Your task to perform on an android device: toggle priority inbox in the gmail app Image 0: 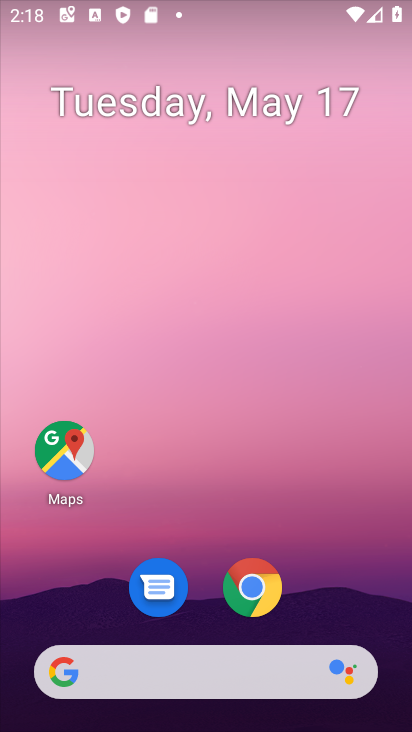
Step 0: drag from (177, 635) to (305, 101)
Your task to perform on an android device: toggle priority inbox in the gmail app Image 1: 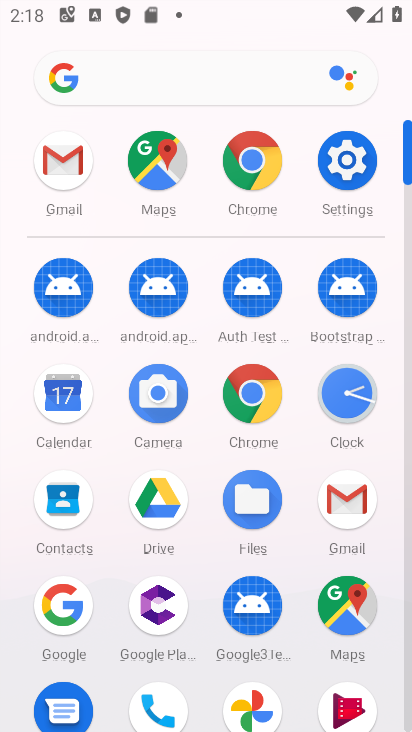
Step 1: click (352, 486)
Your task to perform on an android device: toggle priority inbox in the gmail app Image 2: 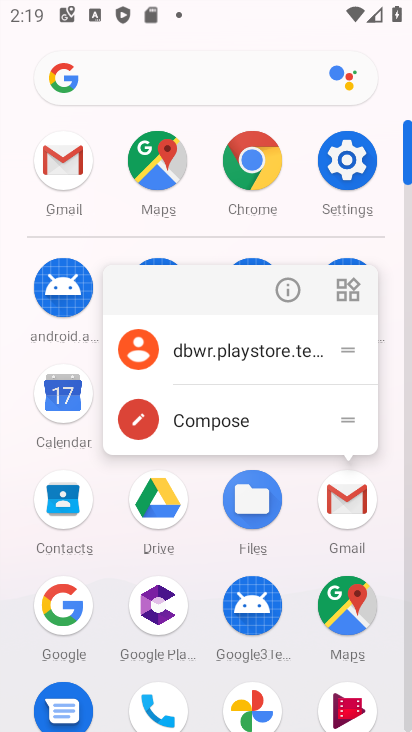
Step 2: click (252, 343)
Your task to perform on an android device: toggle priority inbox in the gmail app Image 3: 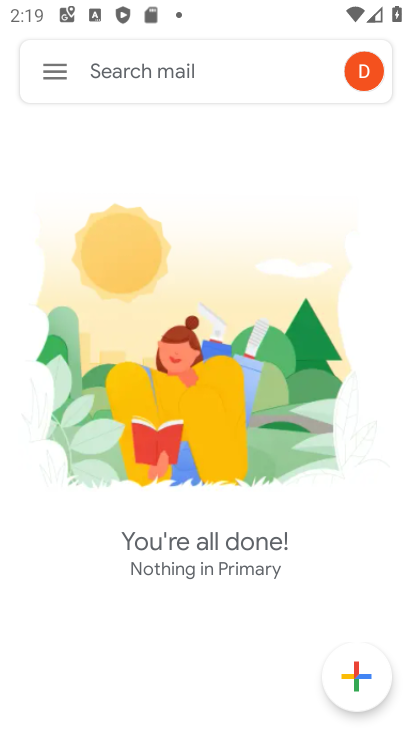
Step 3: click (59, 74)
Your task to perform on an android device: toggle priority inbox in the gmail app Image 4: 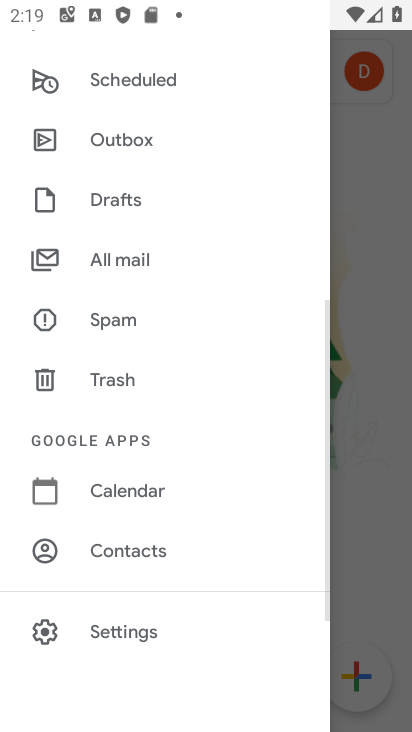
Step 4: click (150, 626)
Your task to perform on an android device: toggle priority inbox in the gmail app Image 5: 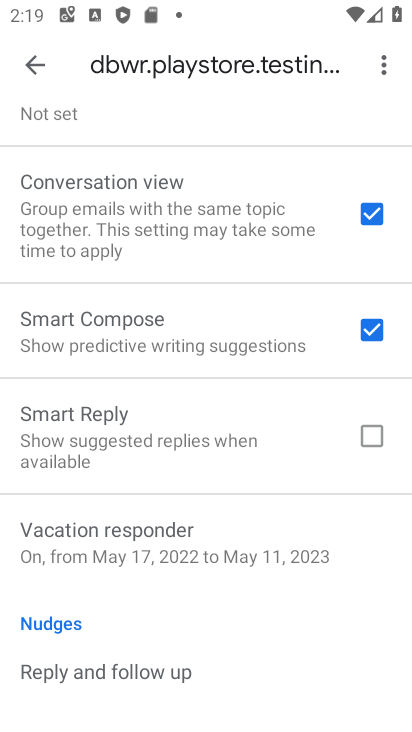
Step 5: drag from (228, 268) to (247, 730)
Your task to perform on an android device: toggle priority inbox in the gmail app Image 6: 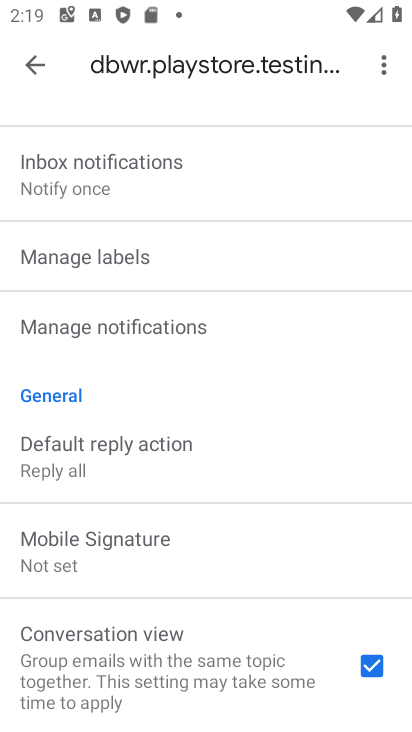
Step 6: drag from (248, 304) to (262, 633)
Your task to perform on an android device: toggle priority inbox in the gmail app Image 7: 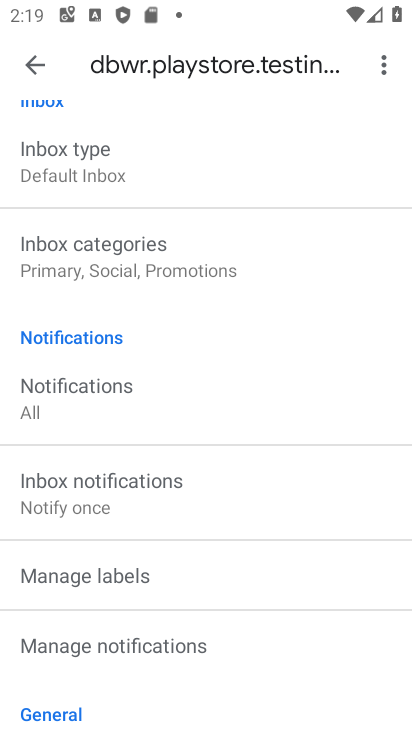
Step 7: drag from (203, 334) to (221, 648)
Your task to perform on an android device: toggle priority inbox in the gmail app Image 8: 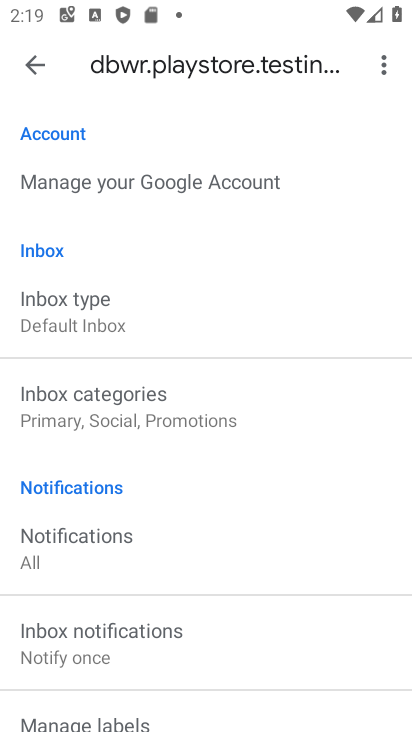
Step 8: click (127, 325)
Your task to perform on an android device: toggle priority inbox in the gmail app Image 9: 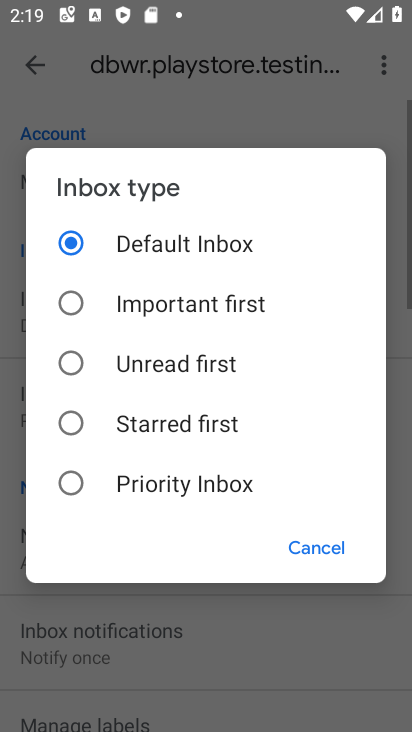
Step 9: click (95, 488)
Your task to perform on an android device: toggle priority inbox in the gmail app Image 10: 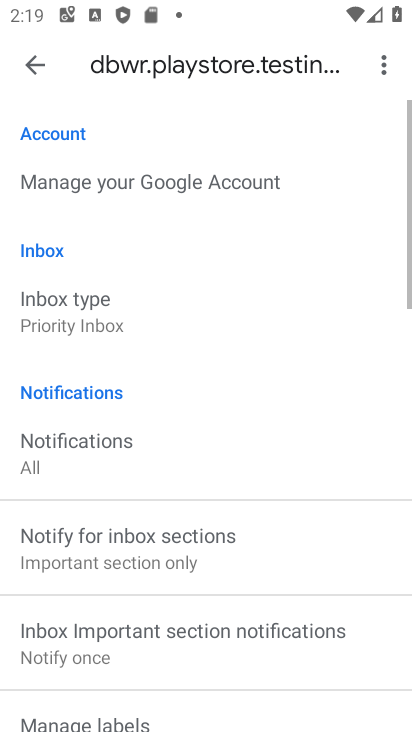
Step 10: task complete